Your task to perform on an android device: What's the weather today? Image 0: 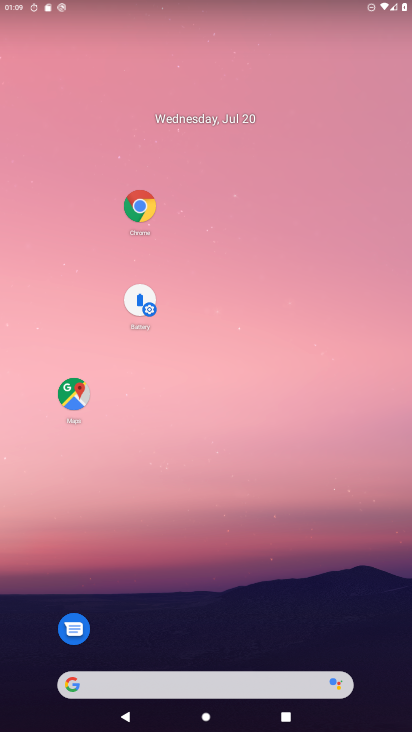
Step 0: drag from (220, 274) to (220, 179)
Your task to perform on an android device: What's the weather today? Image 1: 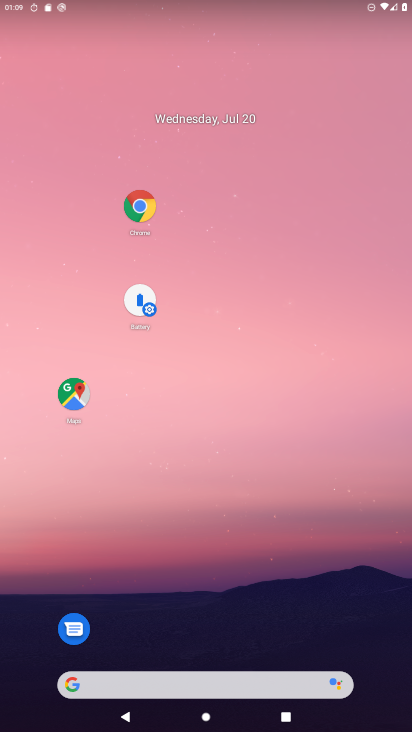
Step 1: drag from (195, 584) to (256, 0)
Your task to perform on an android device: What's the weather today? Image 2: 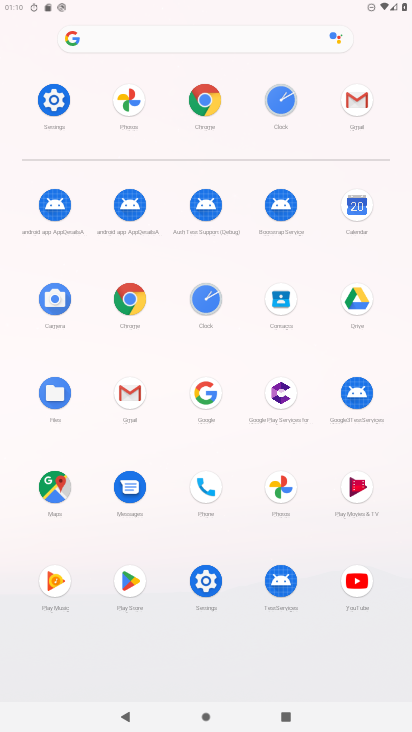
Step 2: click (208, 43)
Your task to perform on an android device: What's the weather today? Image 3: 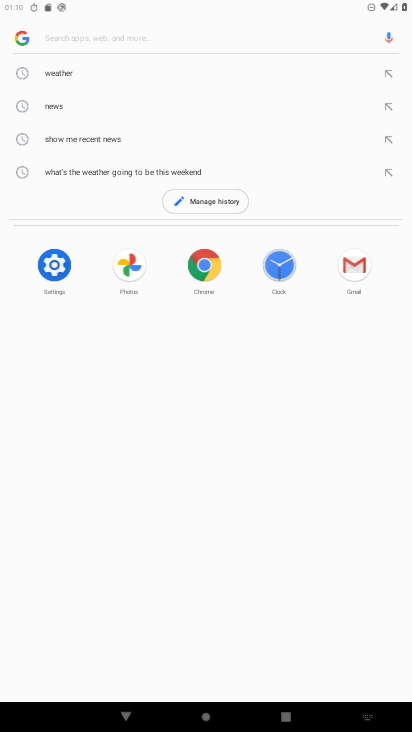
Step 3: type "What's the weather today?"
Your task to perform on an android device: What's the weather today? Image 4: 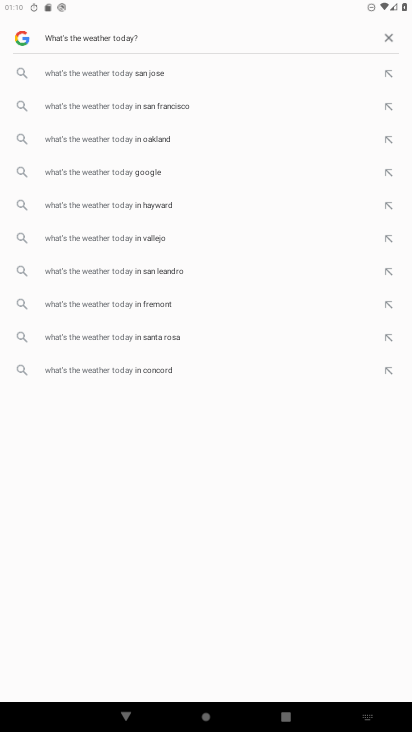
Step 4: click (85, 171)
Your task to perform on an android device: What's the weather today? Image 5: 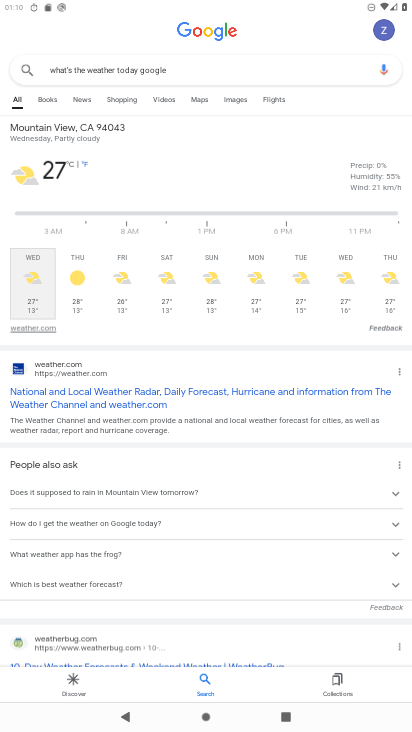
Step 5: task complete